Your task to perform on an android device: change notifications settings Image 0: 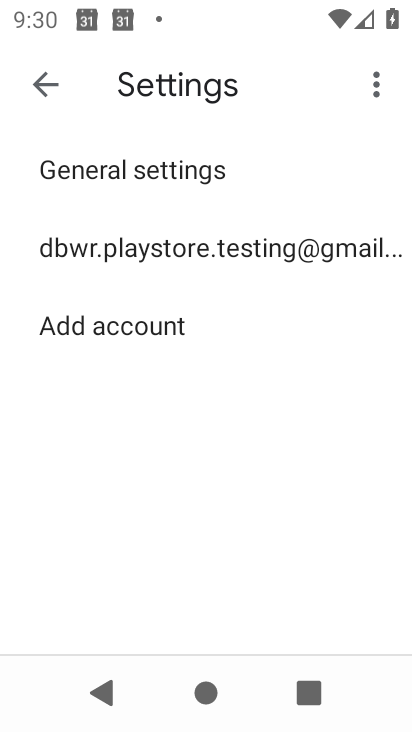
Step 0: press home button
Your task to perform on an android device: change notifications settings Image 1: 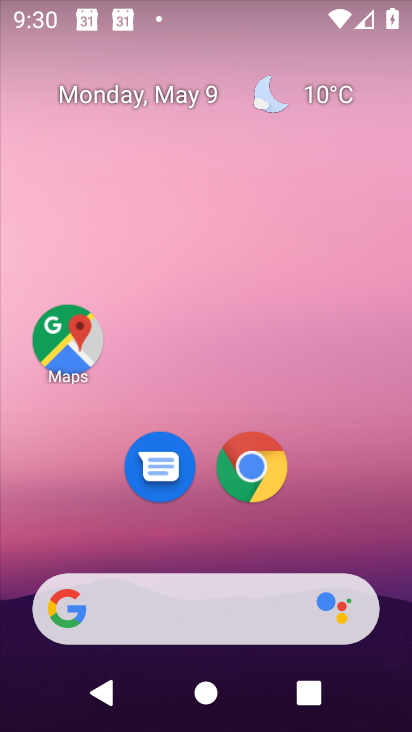
Step 1: drag from (332, 553) to (285, 5)
Your task to perform on an android device: change notifications settings Image 2: 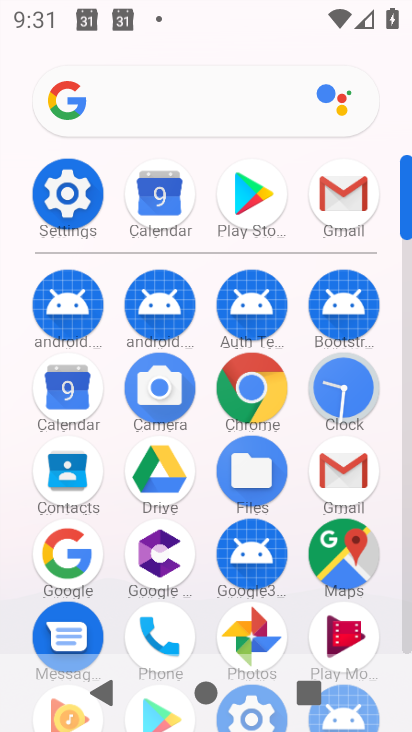
Step 2: click (85, 199)
Your task to perform on an android device: change notifications settings Image 3: 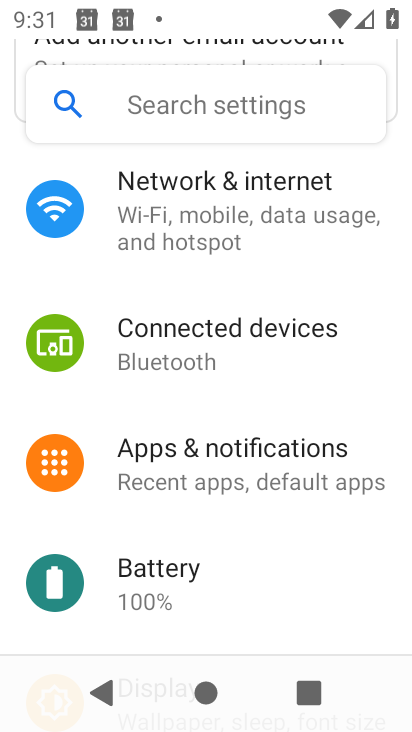
Step 3: click (225, 455)
Your task to perform on an android device: change notifications settings Image 4: 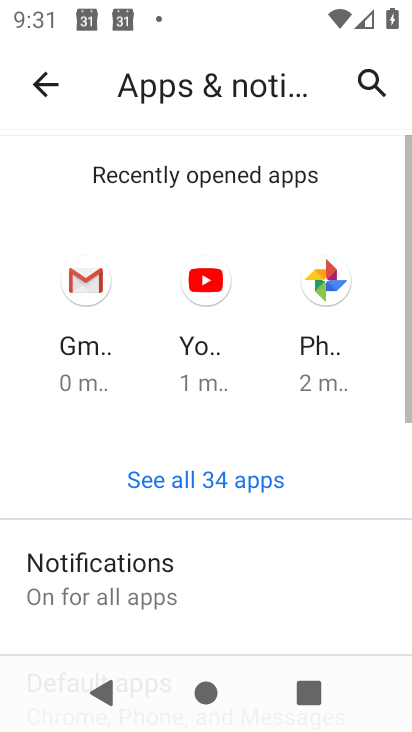
Step 4: click (135, 560)
Your task to perform on an android device: change notifications settings Image 5: 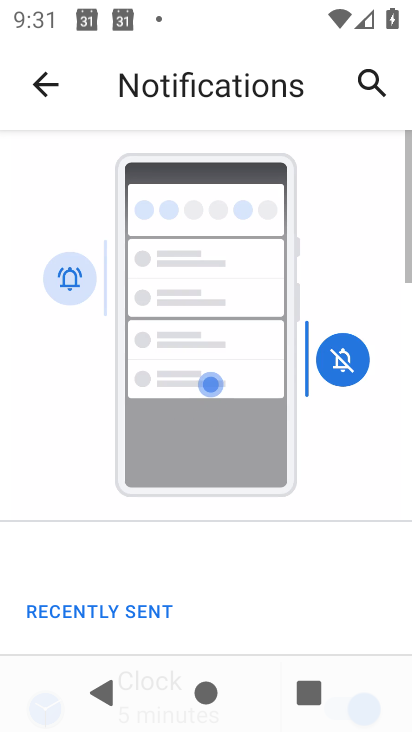
Step 5: drag from (196, 593) to (200, 70)
Your task to perform on an android device: change notifications settings Image 6: 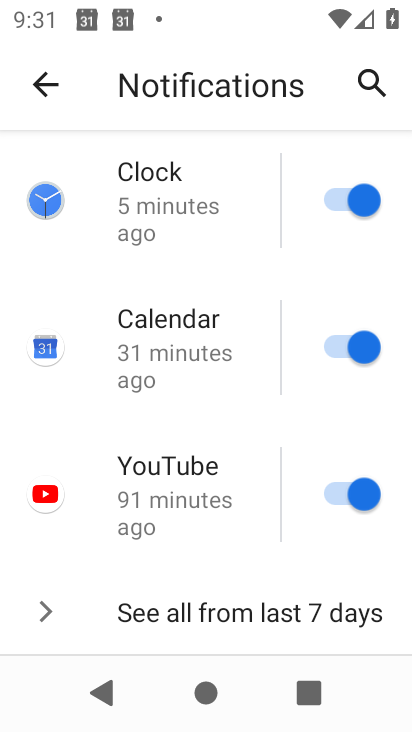
Step 6: drag from (187, 508) to (197, 101)
Your task to perform on an android device: change notifications settings Image 7: 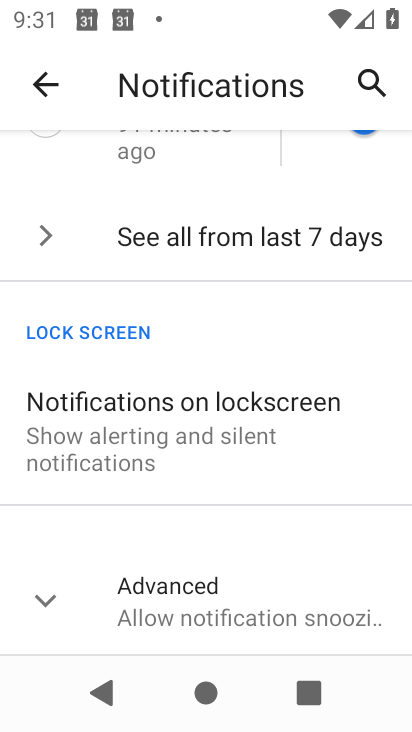
Step 7: click (154, 250)
Your task to perform on an android device: change notifications settings Image 8: 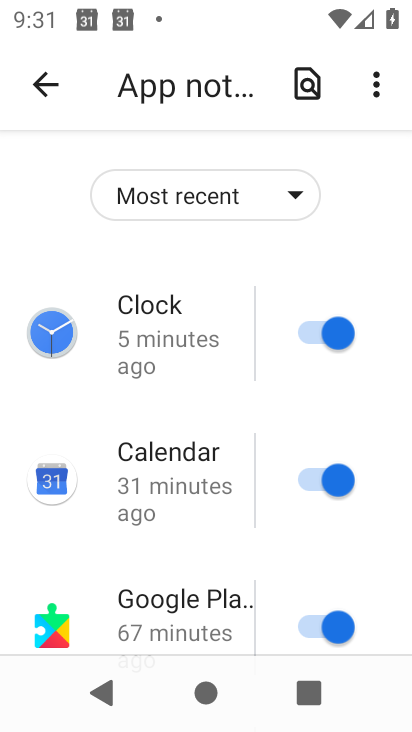
Step 8: click (300, 201)
Your task to perform on an android device: change notifications settings Image 9: 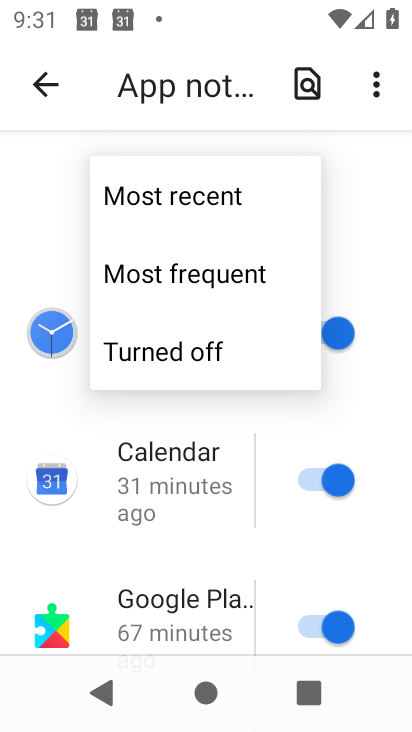
Step 9: click (196, 352)
Your task to perform on an android device: change notifications settings Image 10: 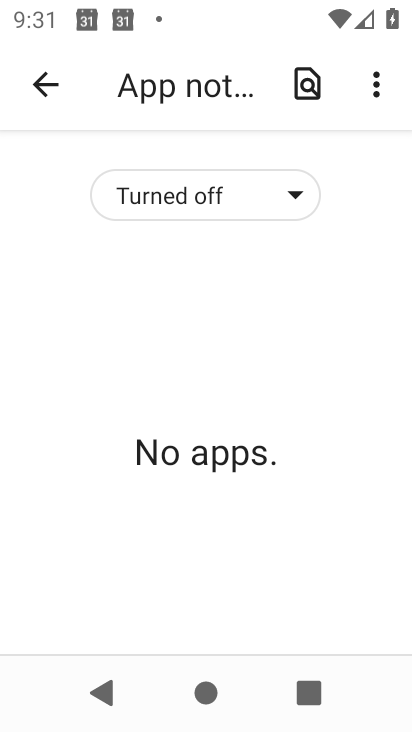
Step 10: task complete